Your task to perform on an android device: What is the news today? Image 0: 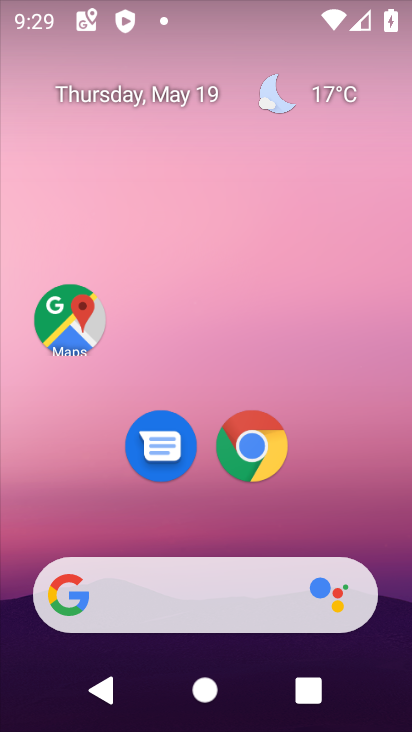
Step 0: click (185, 589)
Your task to perform on an android device: What is the news today? Image 1: 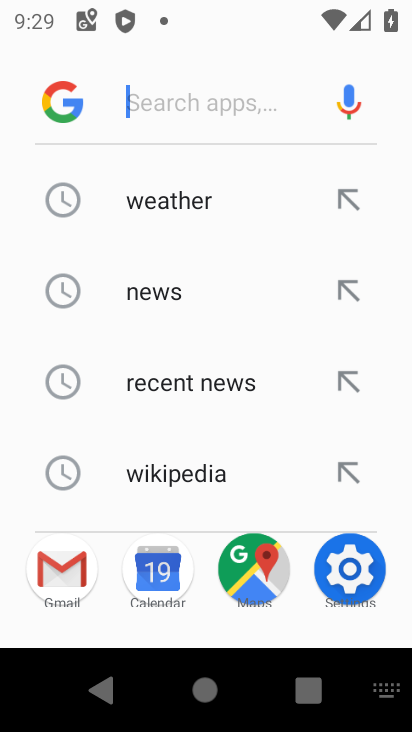
Step 1: type "news today?"
Your task to perform on an android device: What is the news today? Image 2: 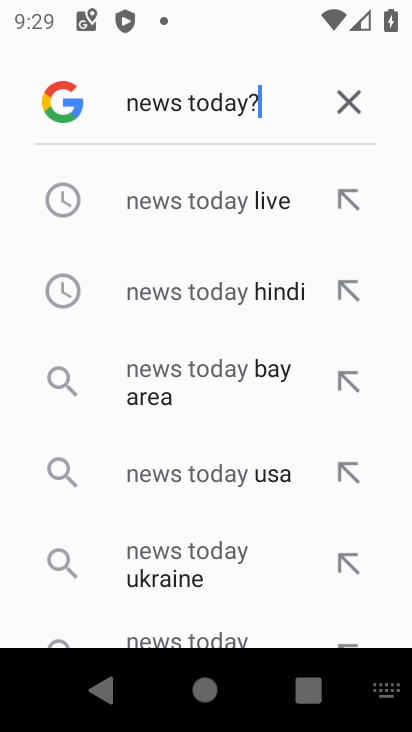
Step 2: click (181, 198)
Your task to perform on an android device: What is the news today? Image 3: 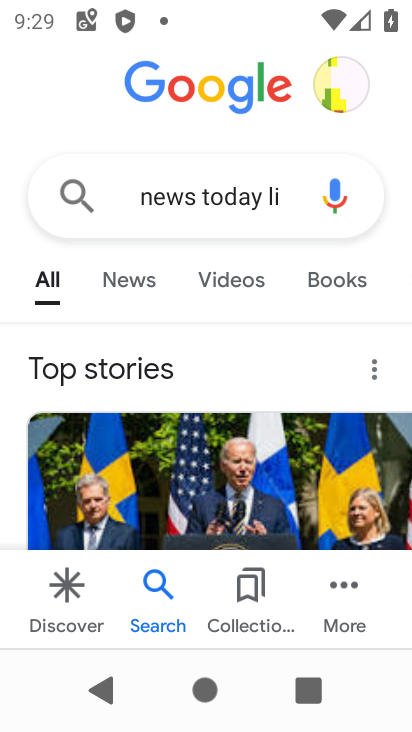
Step 3: task complete